Your task to perform on an android device: Go to accessibility settings Image 0: 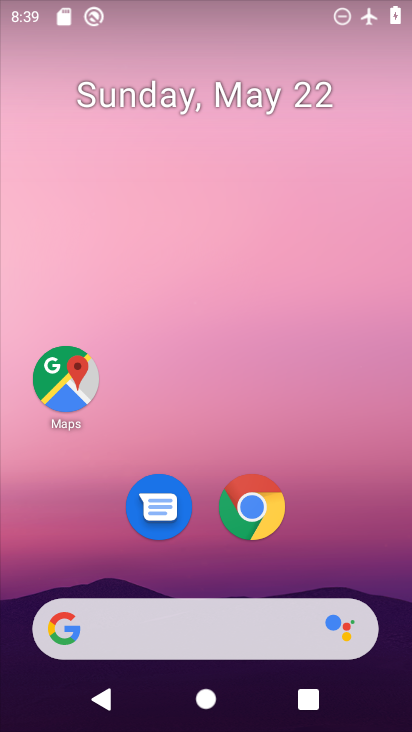
Step 0: drag from (158, 670) to (392, 238)
Your task to perform on an android device: Go to accessibility settings Image 1: 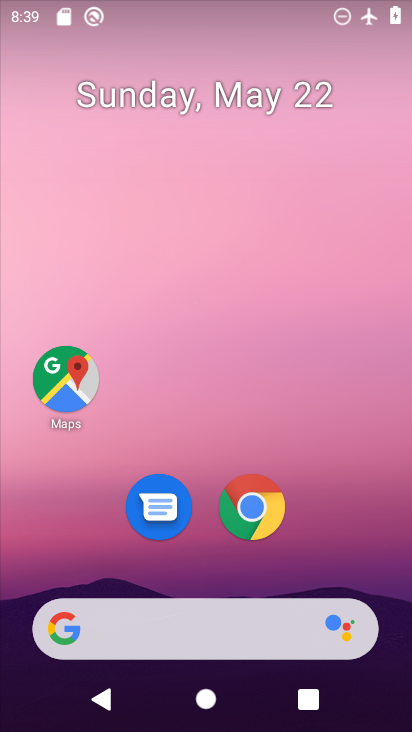
Step 1: drag from (249, 616) to (330, 47)
Your task to perform on an android device: Go to accessibility settings Image 2: 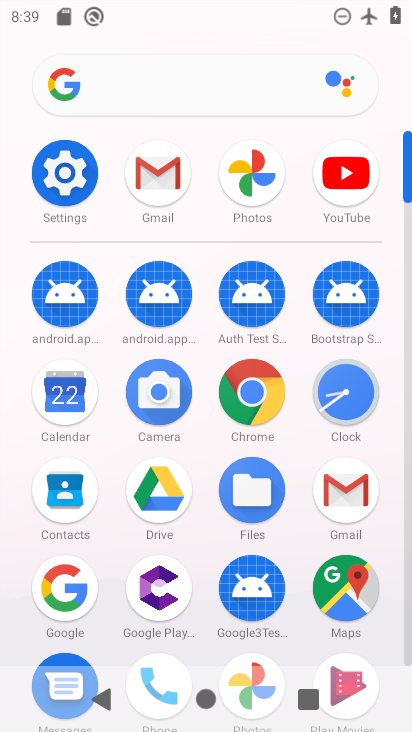
Step 2: press home button
Your task to perform on an android device: Go to accessibility settings Image 3: 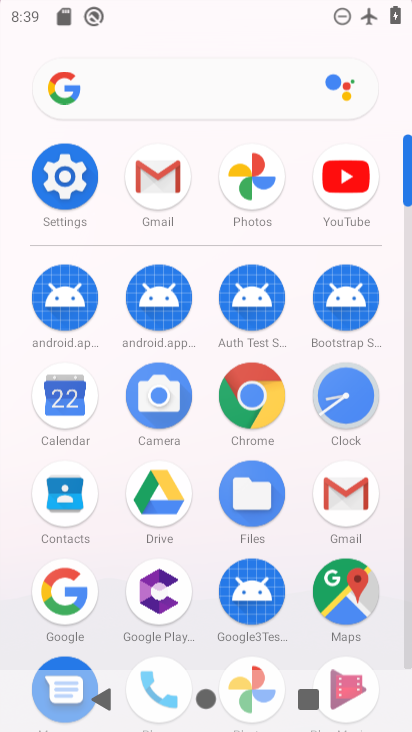
Step 3: drag from (330, 47) to (388, 496)
Your task to perform on an android device: Go to accessibility settings Image 4: 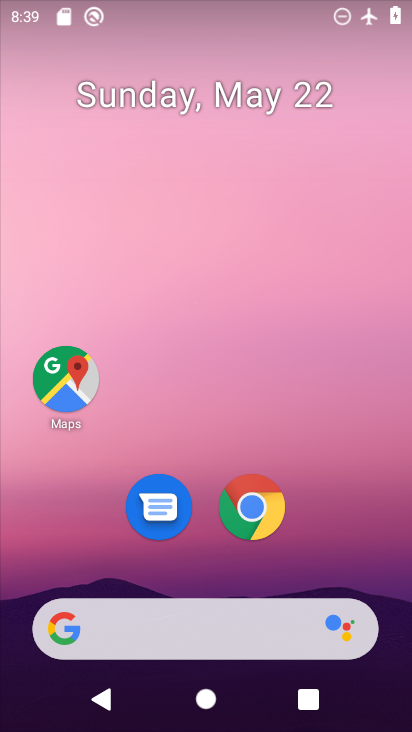
Step 4: drag from (250, 703) to (316, 13)
Your task to perform on an android device: Go to accessibility settings Image 5: 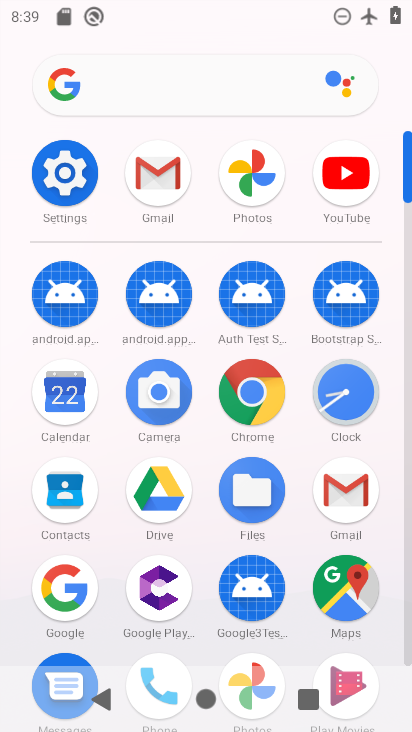
Step 5: click (52, 178)
Your task to perform on an android device: Go to accessibility settings Image 6: 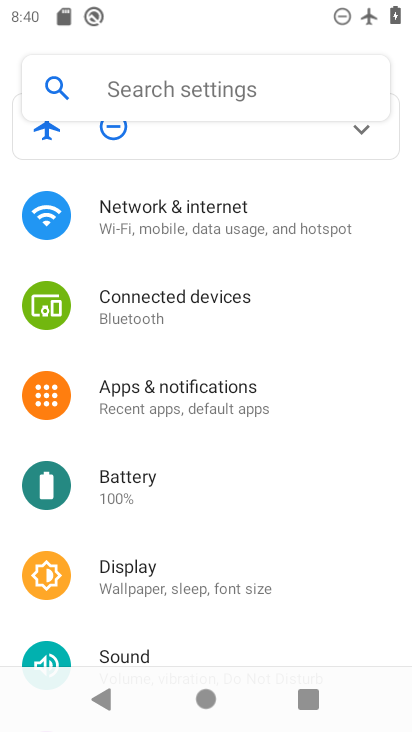
Step 6: drag from (269, 549) to (274, 8)
Your task to perform on an android device: Go to accessibility settings Image 7: 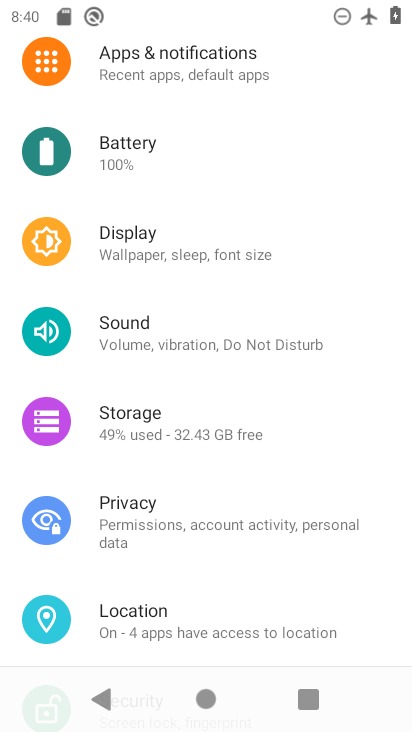
Step 7: drag from (247, 569) to (284, 24)
Your task to perform on an android device: Go to accessibility settings Image 8: 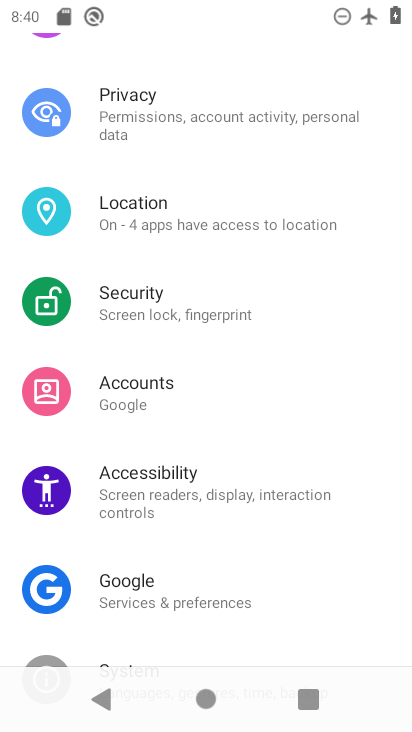
Step 8: click (196, 487)
Your task to perform on an android device: Go to accessibility settings Image 9: 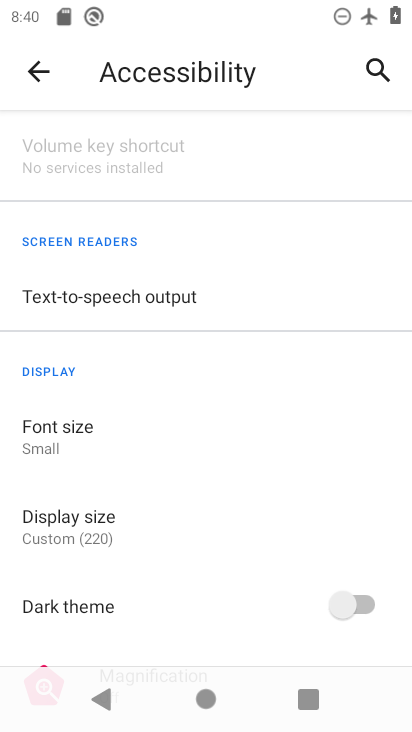
Step 9: task complete